Your task to perform on an android device: open app "Microsoft Authenticator" Image 0: 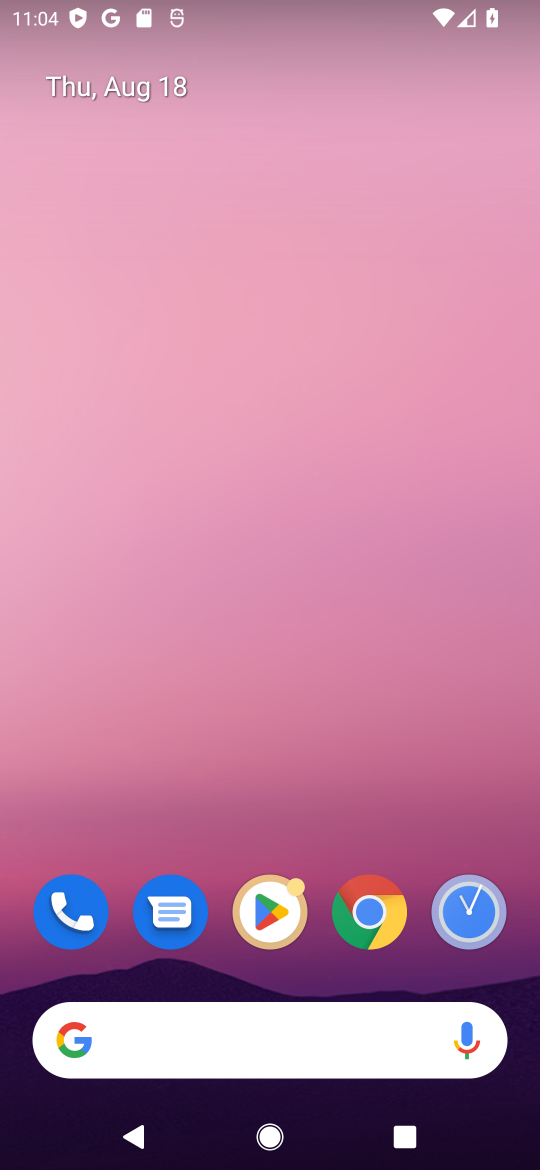
Step 0: click (265, 908)
Your task to perform on an android device: open app "Microsoft Authenticator" Image 1: 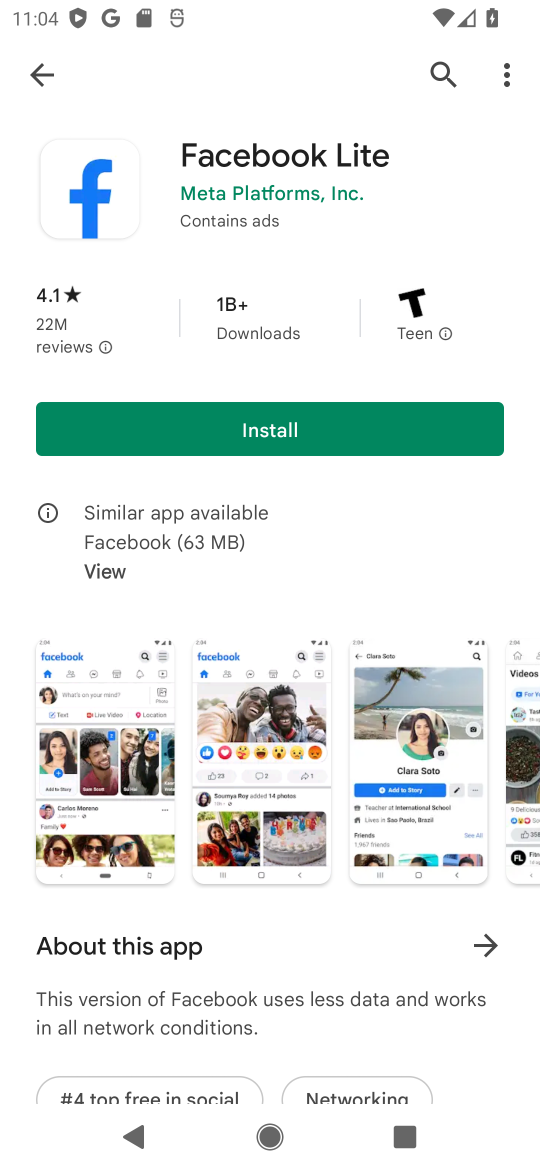
Step 1: click (432, 67)
Your task to perform on an android device: open app "Microsoft Authenticator" Image 2: 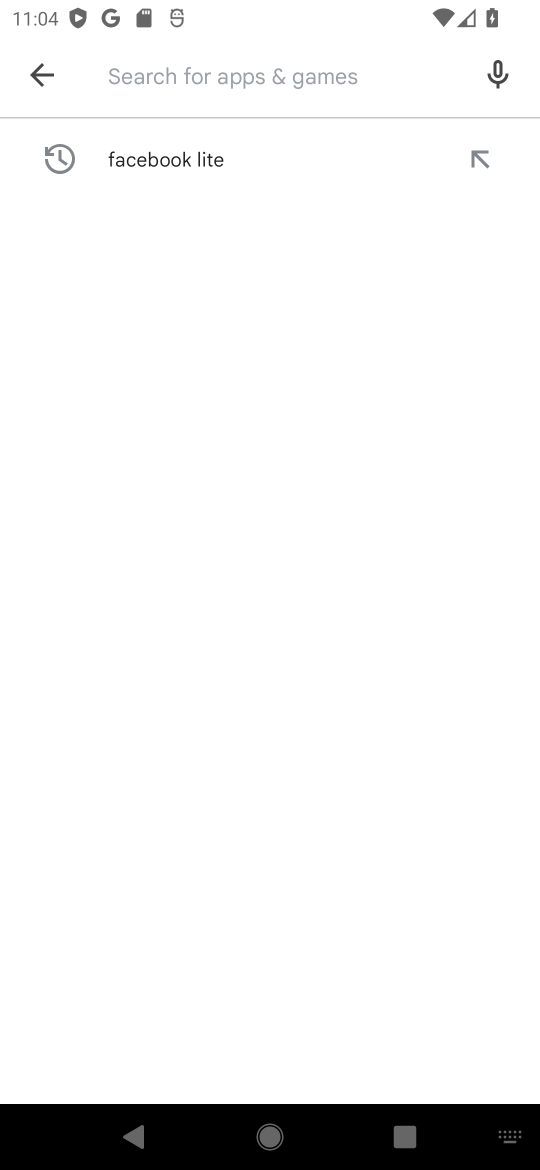
Step 2: click (158, 75)
Your task to perform on an android device: open app "Microsoft Authenticator" Image 3: 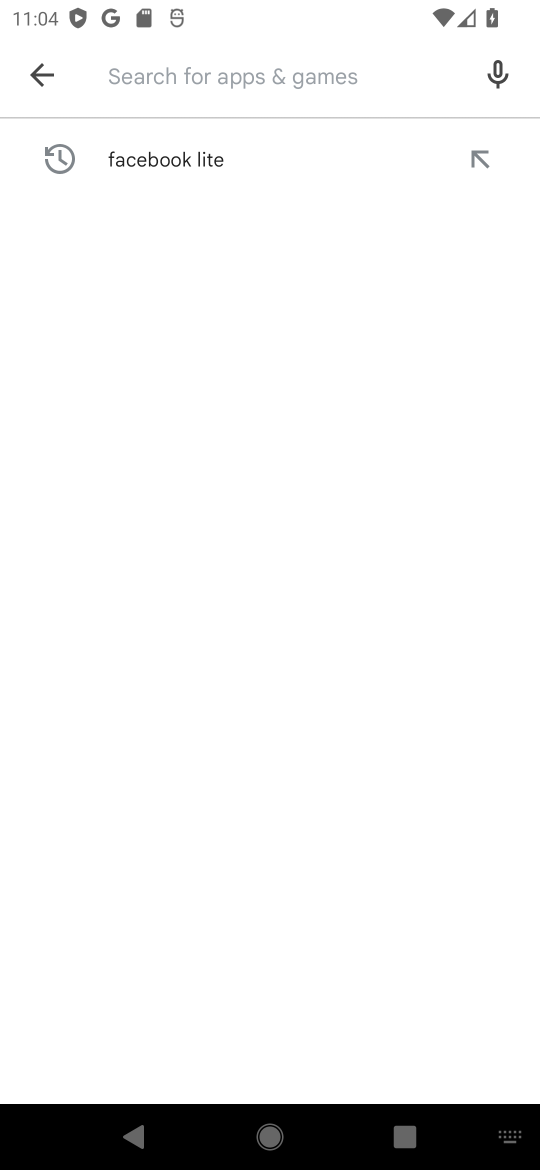
Step 3: type "Microsoft Authenticator"
Your task to perform on an android device: open app "Microsoft Authenticator" Image 4: 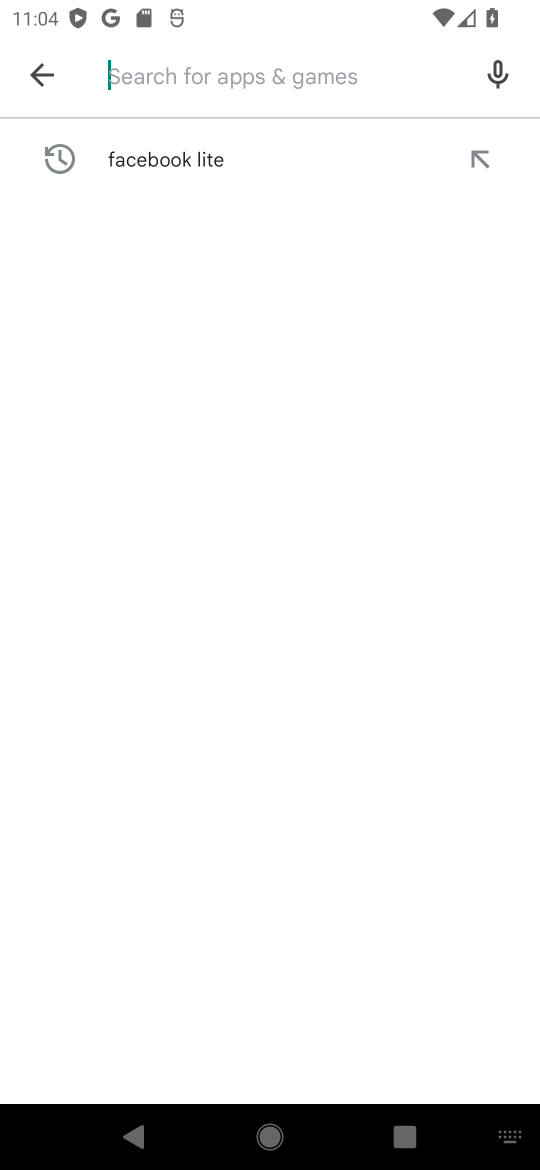
Step 4: click (278, 511)
Your task to perform on an android device: open app "Microsoft Authenticator" Image 5: 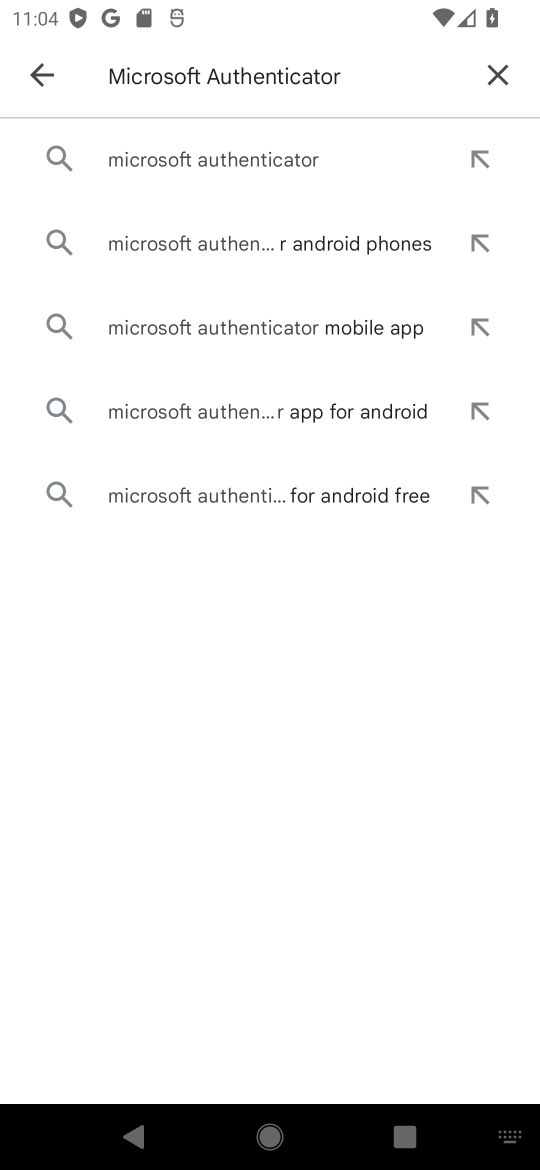
Step 5: click (261, 154)
Your task to perform on an android device: open app "Microsoft Authenticator" Image 6: 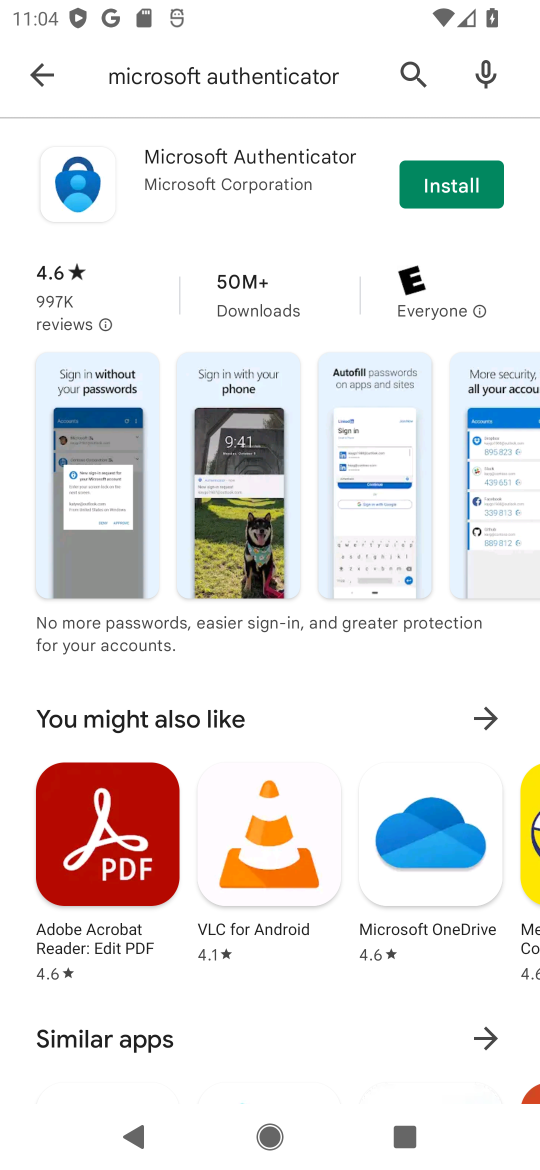
Step 6: click (285, 127)
Your task to perform on an android device: open app "Microsoft Authenticator" Image 7: 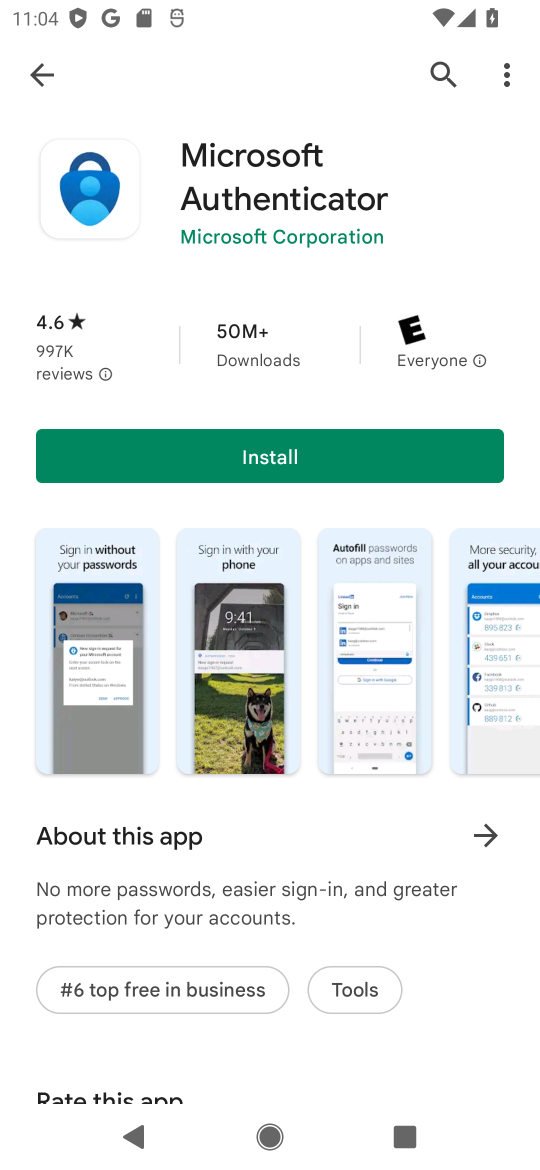
Step 7: task complete